Your task to perform on an android device: find photos in the google photos app Image 0: 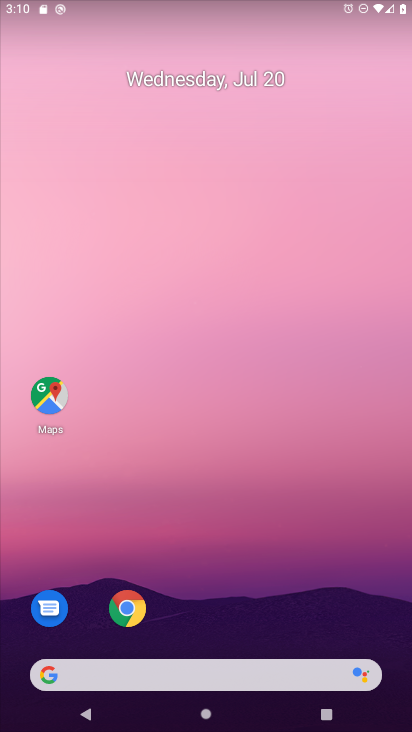
Step 0: drag from (267, 687) to (272, 304)
Your task to perform on an android device: find photos in the google photos app Image 1: 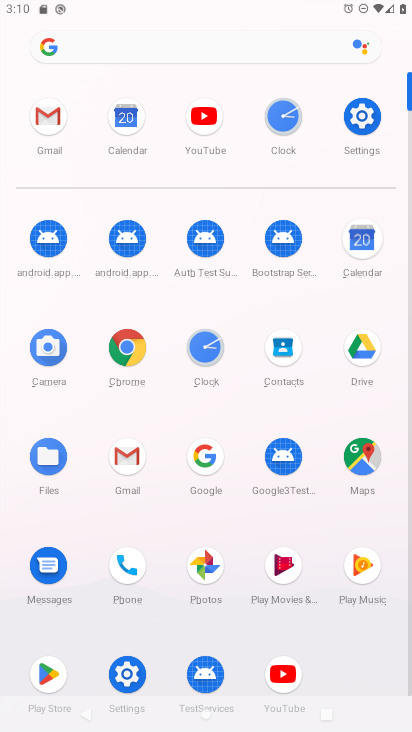
Step 1: click (213, 552)
Your task to perform on an android device: find photos in the google photos app Image 2: 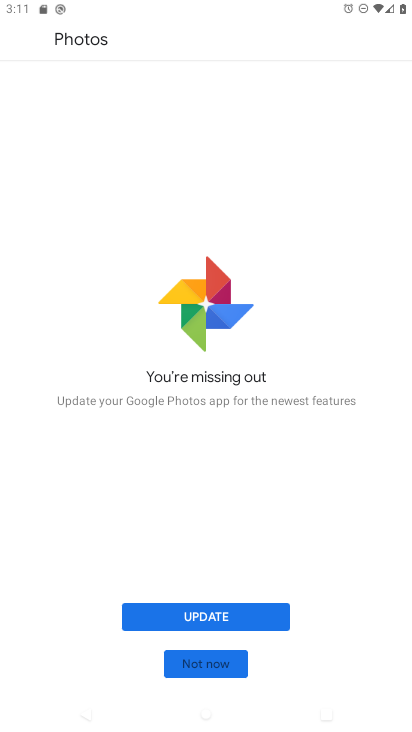
Step 2: click (238, 602)
Your task to perform on an android device: find photos in the google photos app Image 3: 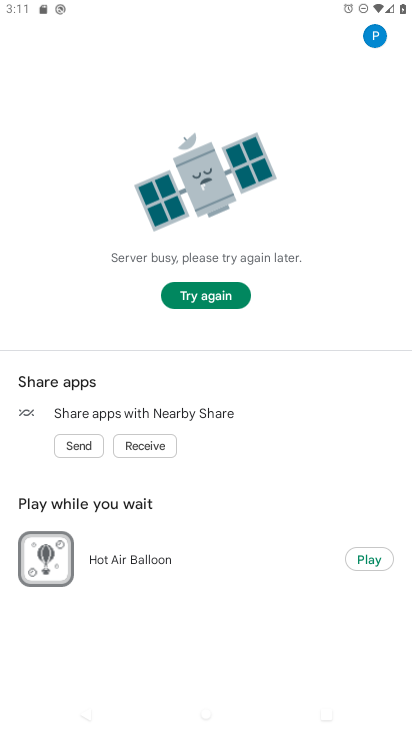
Step 3: task complete